Your task to perform on an android device: Open Amazon Image 0: 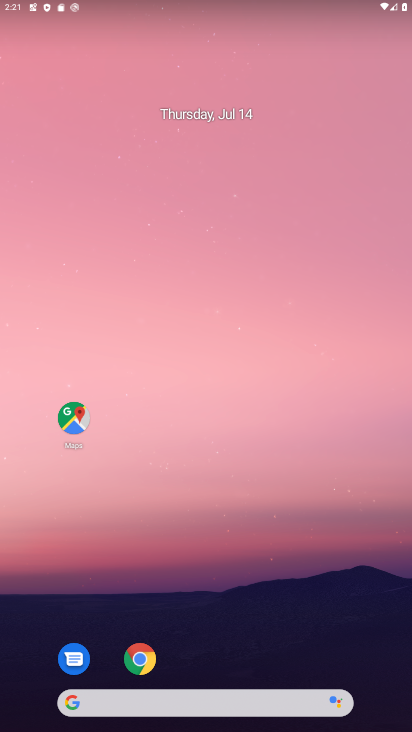
Step 0: press home button
Your task to perform on an android device: Open Amazon Image 1: 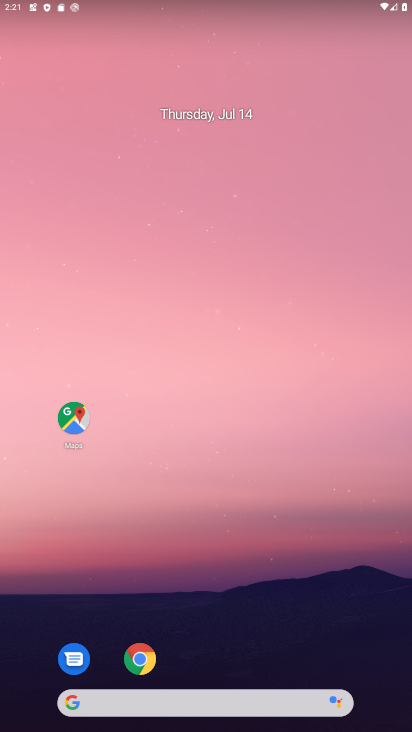
Step 1: click (69, 709)
Your task to perform on an android device: Open Amazon Image 2: 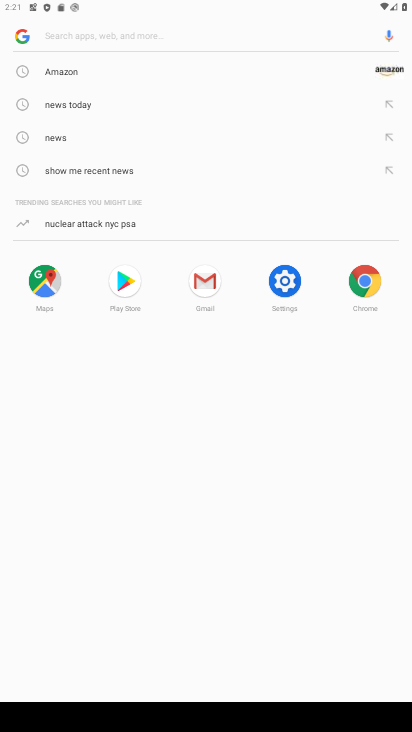
Step 2: click (63, 70)
Your task to perform on an android device: Open Amazon Image 3: 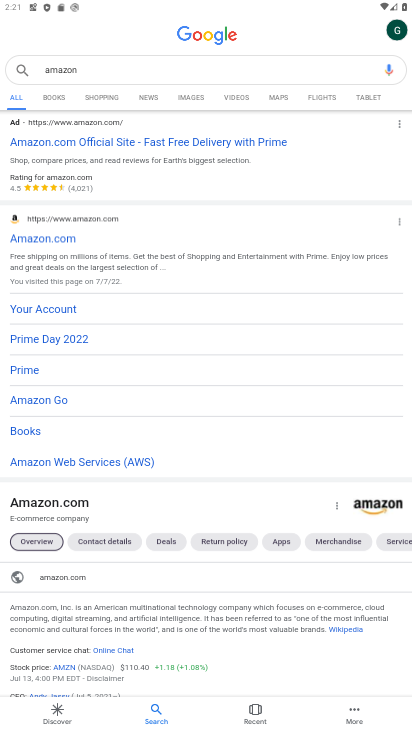
Step 3: click (97, 142)
Your task to perform on an android device: Open Amazon Image 4: 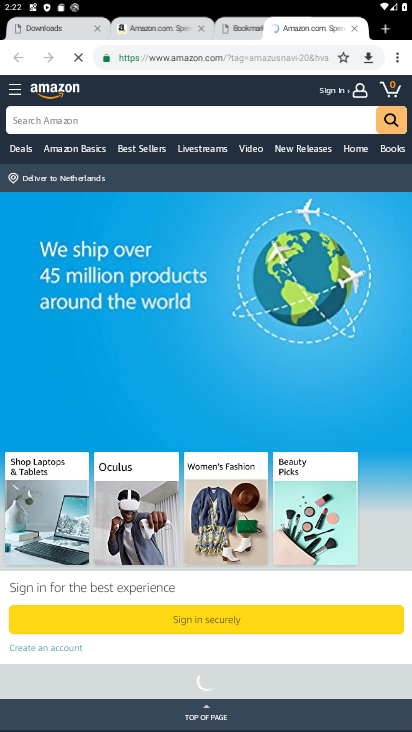
Step 4: task complete